Your task to perform on an android device: Show me productivity apps on the Play Store Image 0: 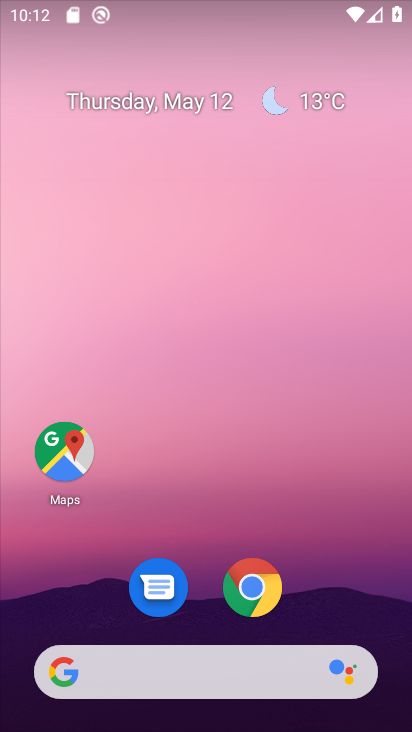
Step 0: drag from (206, 517) to (237, 147)
Your task to perform on an android device: Show me productivity apps on the Play Store Image 1: 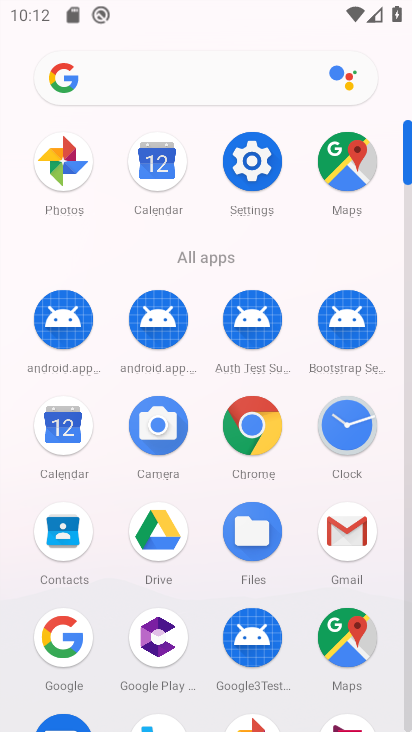
Step 1: drag from (197, 507) to (240, 134)
Your task to perform on an android device: Show me productivity apps on the Play Store Image 2: 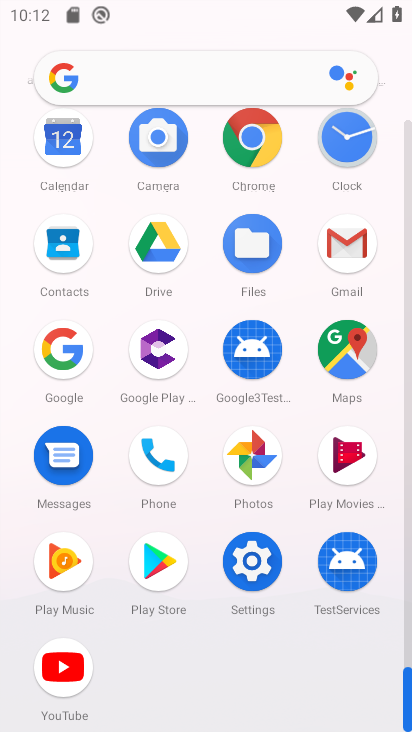
Step 2: click (165, 570)
Your task to perform on an android device: Show me productivity apps on the Play Store Image 3: 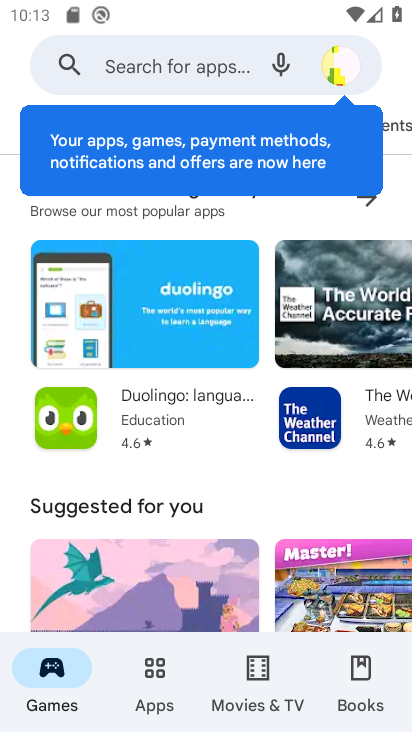
Step 3: click (160, 701)
Your task to perform on an android device: Show me productivity apps on the Play Store Image 4: 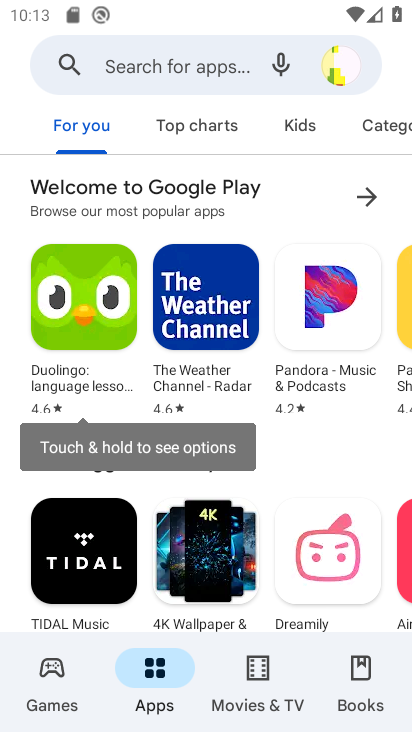
Step 4: click (382, 127)
Your task to perform on an android device: Show me productivity apps on the Play Store Image 5: 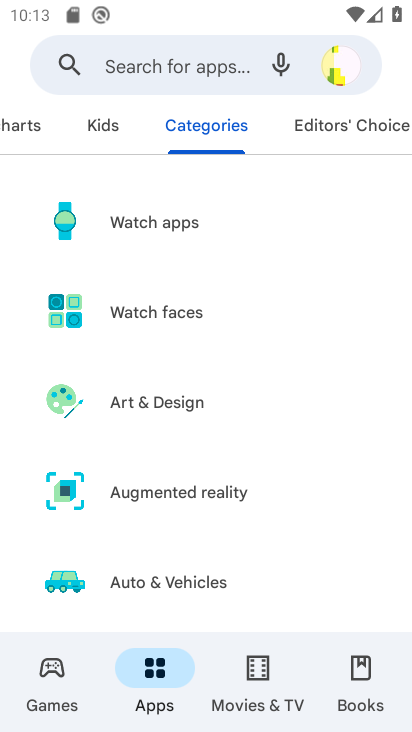
Step 5: drag from (161, 591) to (239, 68)
Your task to perform on an android device: Show me productivity apps on the Play Store Image 6: 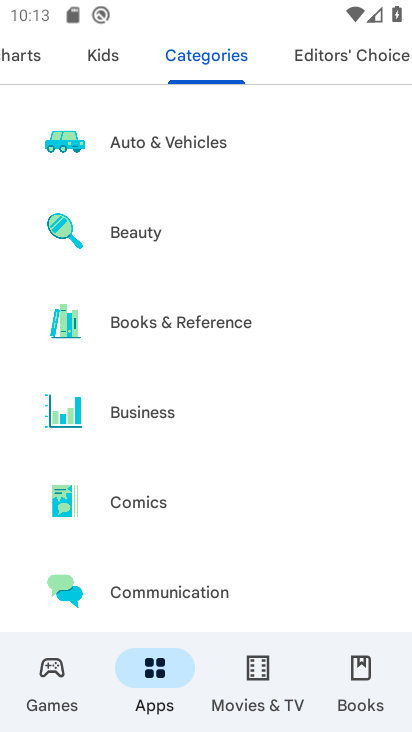
Step 6: drag from (187, 607) to (224, 160)
Your task to perform on an android device: Show me productivity apps on the Play Store Image 7: 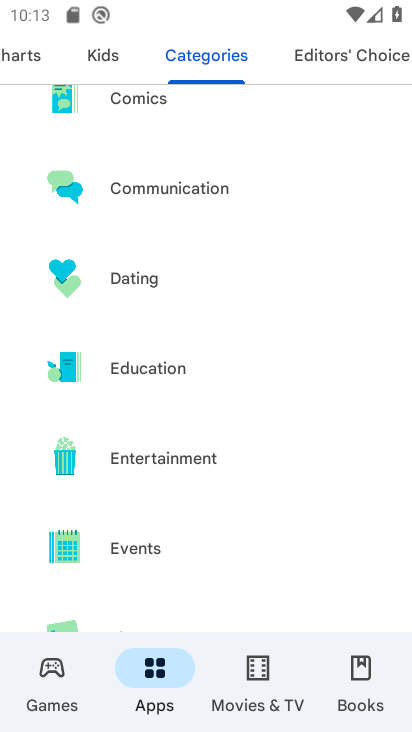
Step 7: drag from (154, 618) to (200, 0)
Your task to perform on an android device: Show me productivity apps on the Play Store Image 8: 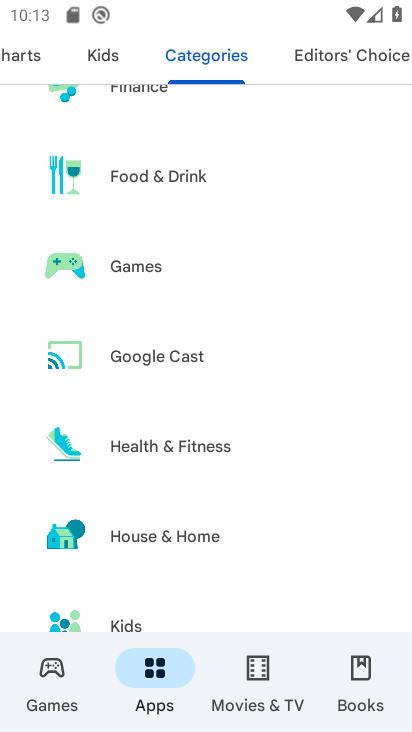
Step 8: drag from (180, 546) to (228, 28)
Your task to perform on an android device: Show me productivity apps on the Play Store Image 9: 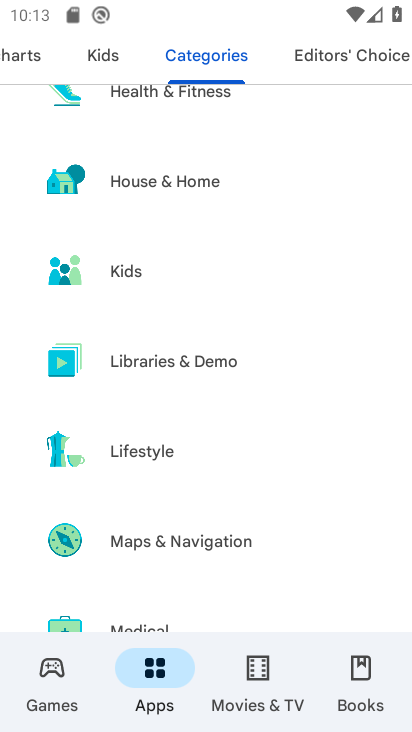
Step 9: drag from (195, 602) to (265, 30)
Your task to perform on an android device: Show me productivity apps on the Play Store Image 10: 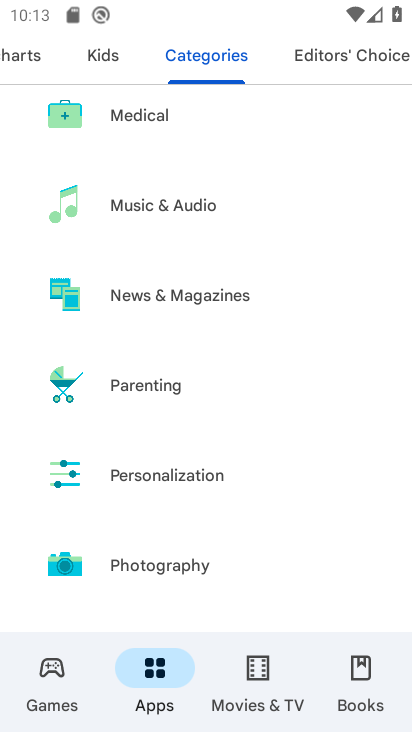
Step 10: drag from (201, 583) to (231, 224)
Your task to perform on an android device: Show me productivity apps on the Play Store Image 11: 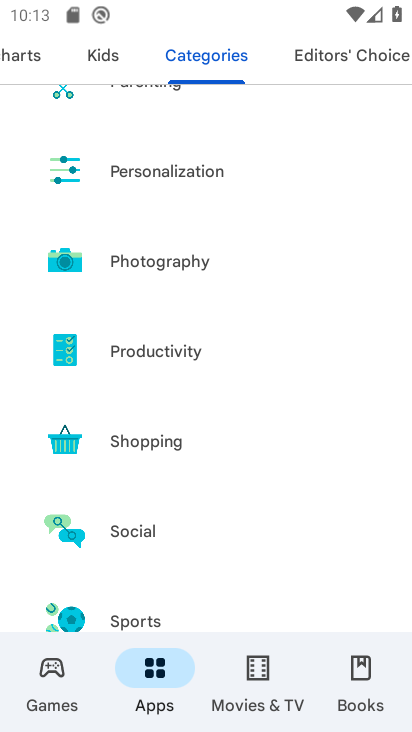
Step 11: click (161, 342)
Your task to perform on an android device: Show me productivity apps on the Play Store Image 12: 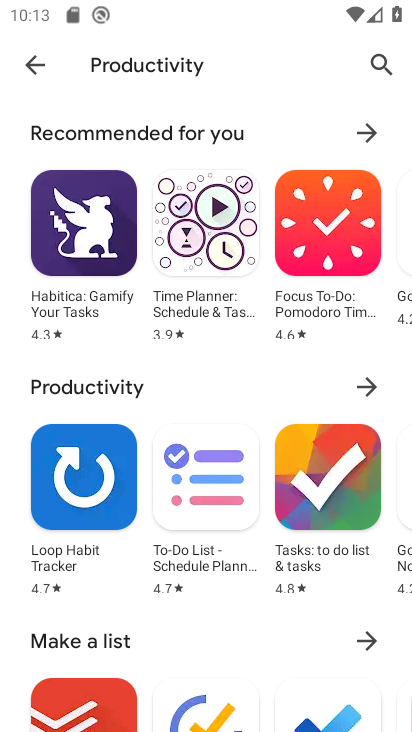
Step 12: task complete